Your task to perform on an android device: Search for flights from Barcelona to Mexico city Image 0: 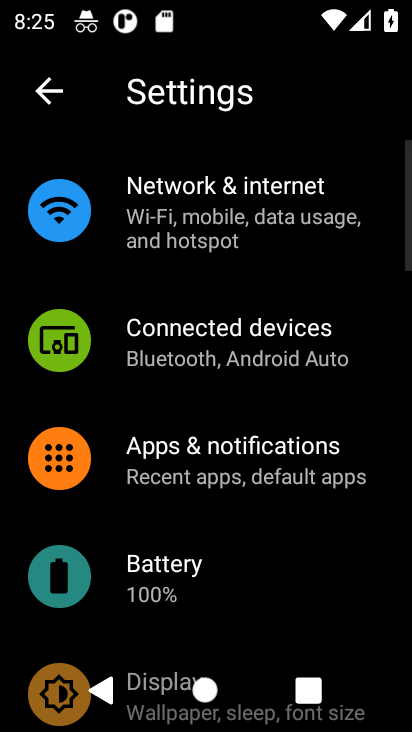
Step 0: press home button
Your task to perform on an android device: Search for flights from Barcelona to Mexico city Image 1: 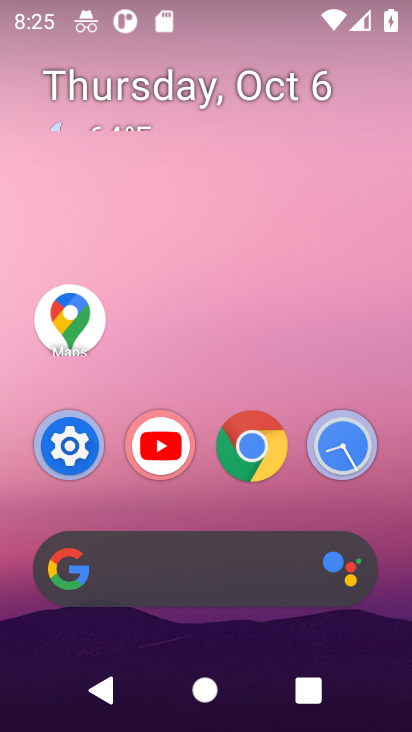
Step 1: click (201, 587)
Your task to perform on an android device: Search for flights from Barcelona to Mexico city Image 2: 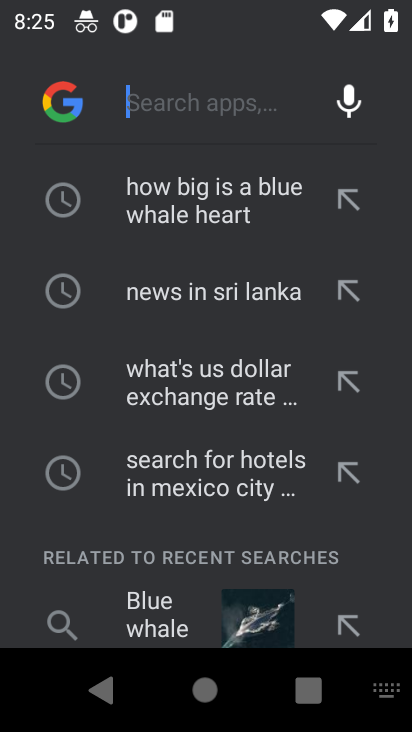
Step 2: type "Search for flights from Barcelona to Mexico city"
Your task to perform on an android device: Search for flights from Barcelona to Mexico city Image 3: 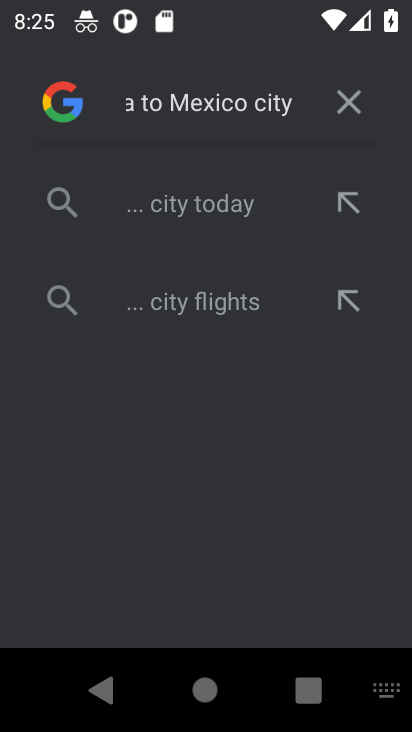
Step 3: click (257, 105)
Your task to perform on an android device: Search for flights from Barcelona to Mexico city Image 4: 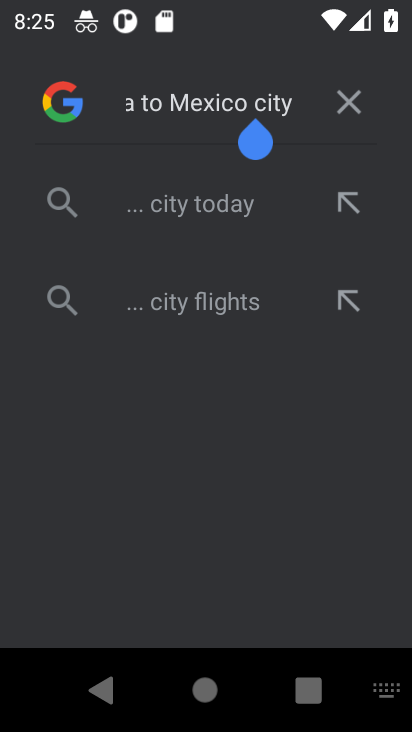
Step 4: task complete